Your task to perform on an android device: turn notification dots on Image 0: 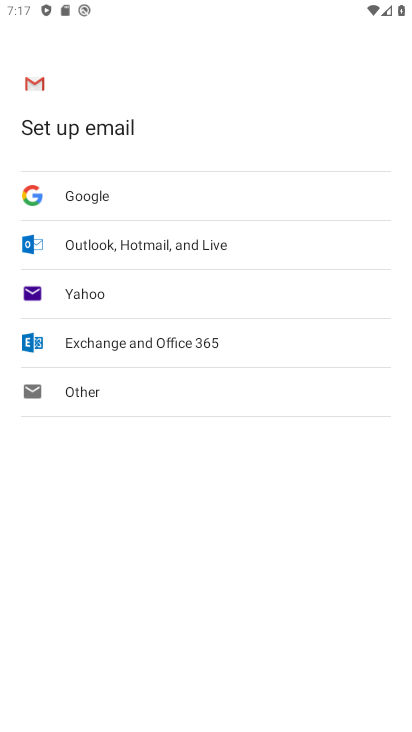
Step 0: press home button
Your task to perform on an android device: turn notification dots on Image 1: 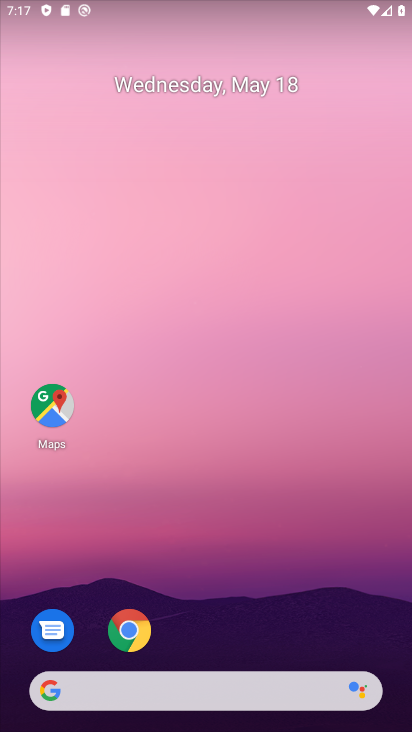
Step 1: drag from (222, 552) to (134, 201)
Your task to perform on an android device: turn notification dots on Image 2: 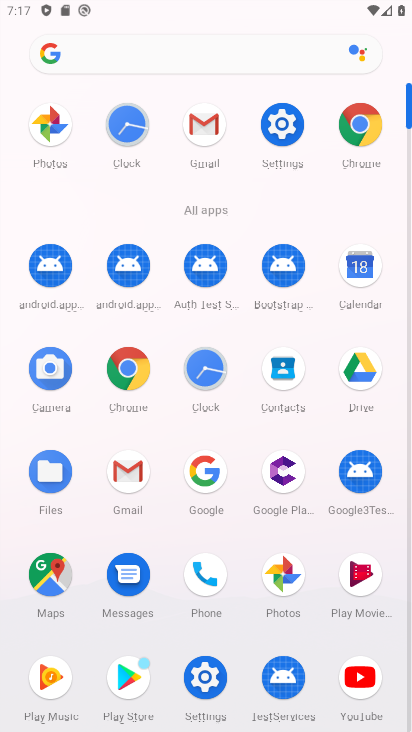
Step 2: click (283, 124)
Your task to perform on an android device: turn notification dots on Image 3: 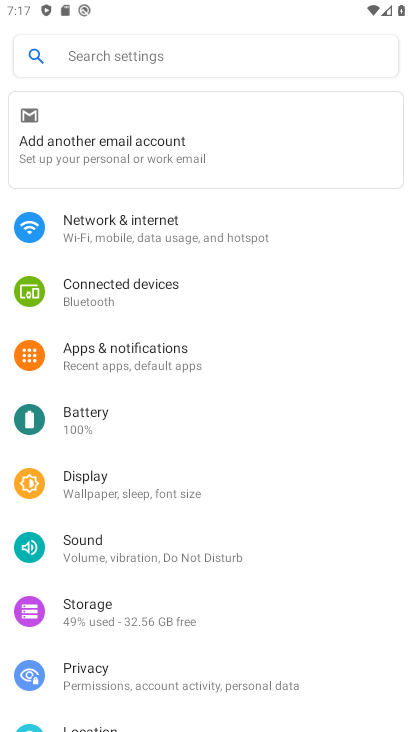
Step 3: click (139, 352)
Your task to perform on an android device: turn notification dots on Image 4: 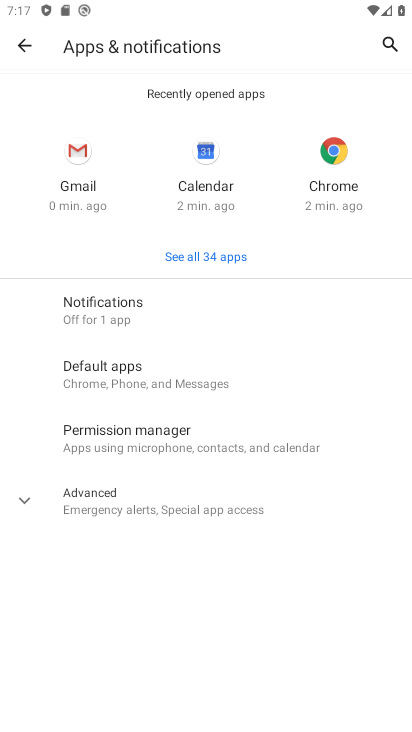
Step 4: click (108, 299)
Your task to perform on an android device: turn notification dots on Image 5: 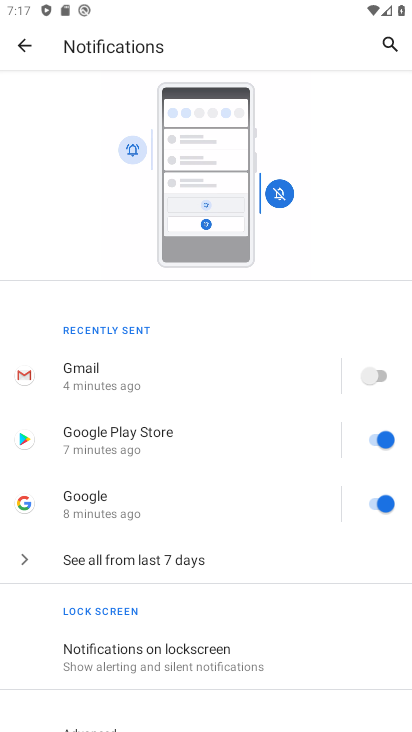
Step 5: drag from (213, 602) to (108, 160)
Your task to perform on an android device: turn notification dots on Image 6: 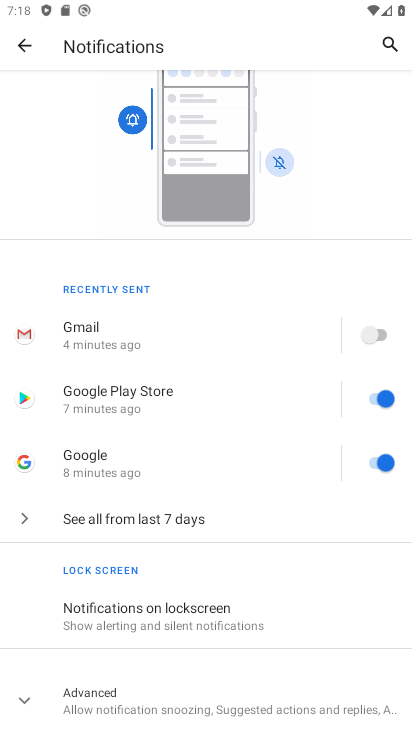
Step 6: click (17, 696)
Your task to perform on an android device: turn notification dots on Image 7: 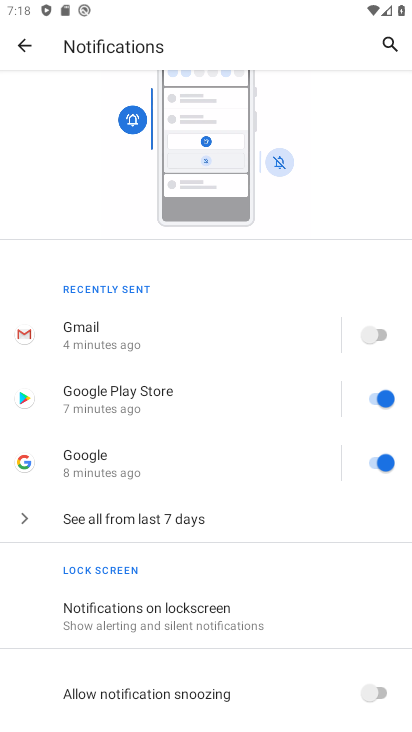
Step 7: task complete